Your task to perform on an android device: Open location settings Image 0: 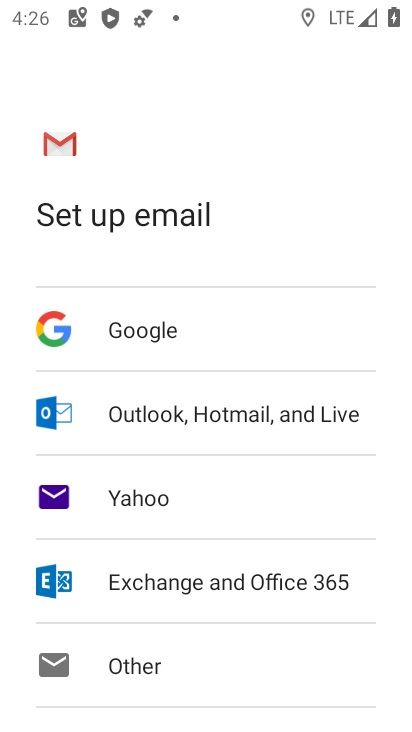
Step 0: press back button
Your task to perform on an android device: Open location settings Image 1: 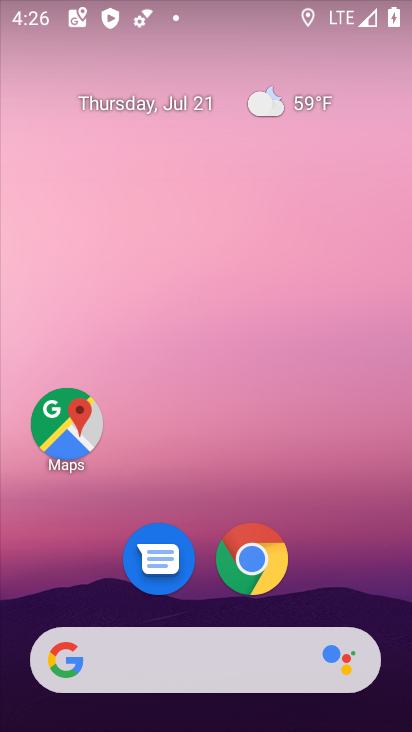
Step 1: drag from (88, 553) to (175, 0)
Your task to perform on an android device: Open location settings Image 2: 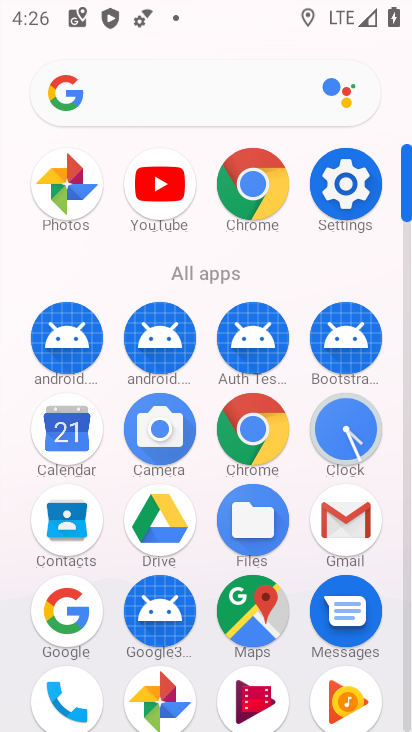
Step 2: click (348, 193)
Your task to perform on an android device: Open location settings Image 3: 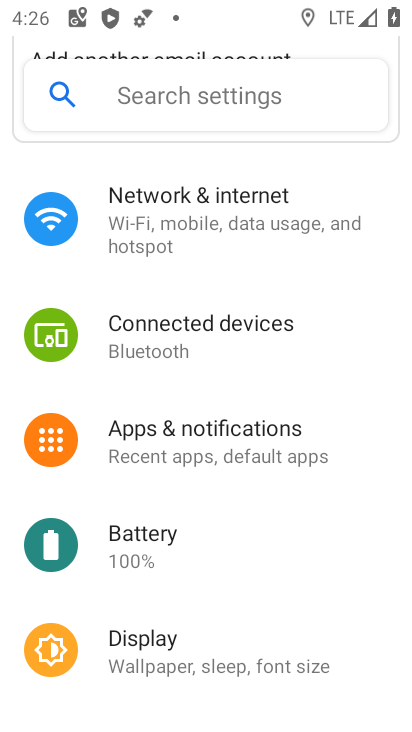
Step 3: drag from (154, 665) to (269, 120)
Your task to perform on an android device: Open location settings Image 4: 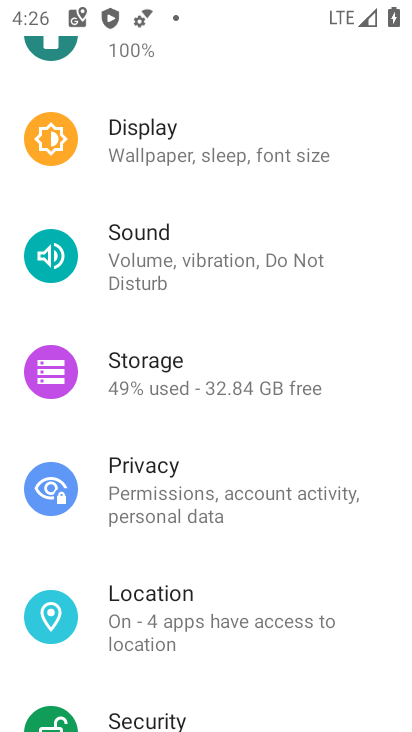
Step 4: click (171, 622)
Your task to perform on an android device: Open location settings Image 5: 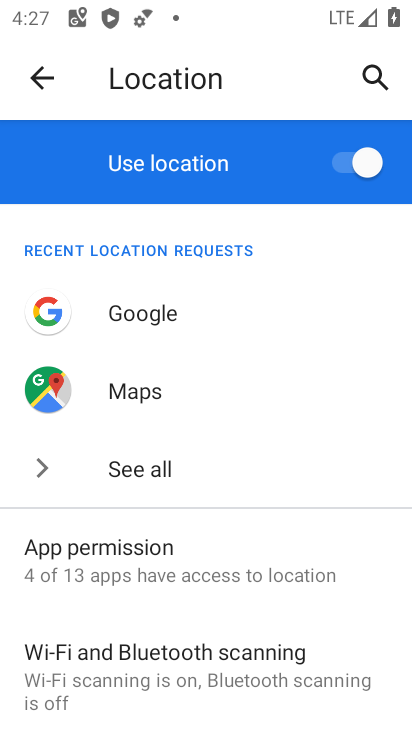
Step 5: task complete